Your task to perform on an android device: Go to battery settings Image 0: 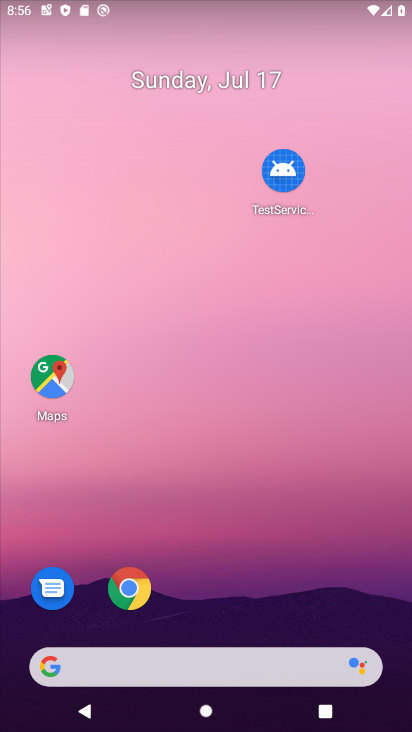
Step 0: drag from (172, 585) to (209, 199)
Your task to perform on an android device: Go to battery settings Image 1: 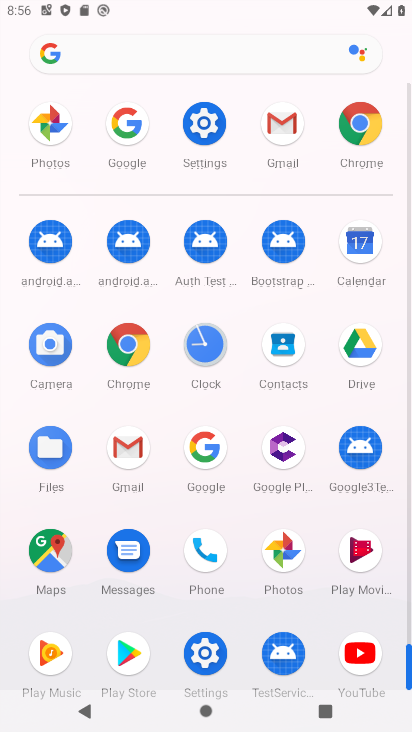
Step 1: drag from (242, 436) to (279, 221)
Your task to perform on an android device: Go to battery settings Image 2: 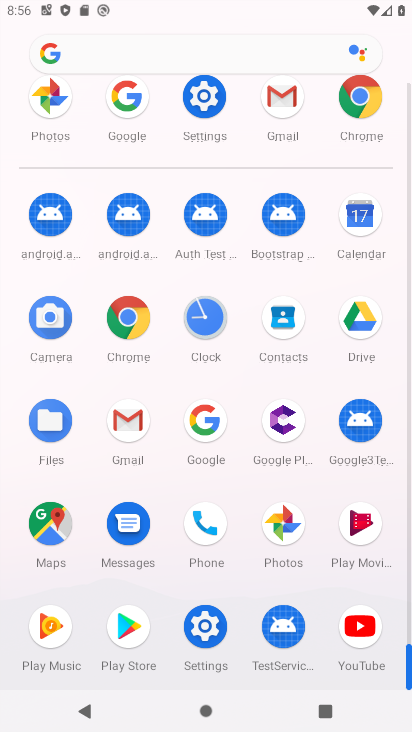
Step 2: click (218, 119)
Your task to perform on an android device: Go to battery settings Image 3: 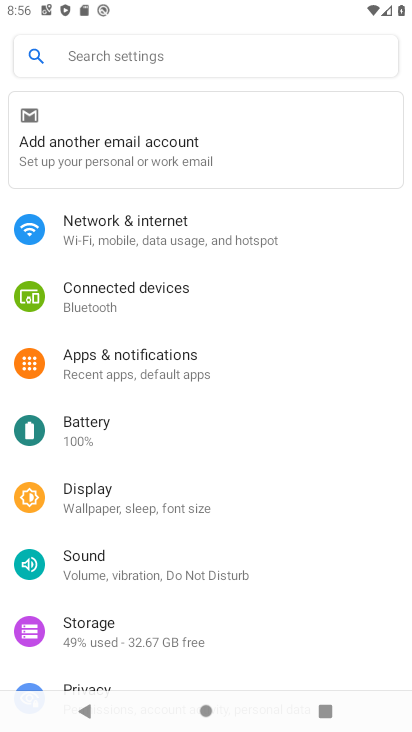
Step 3: drag from (178, 480) to (218, 227)
Your task to perform on an android device: Go to battery settings Image 4: 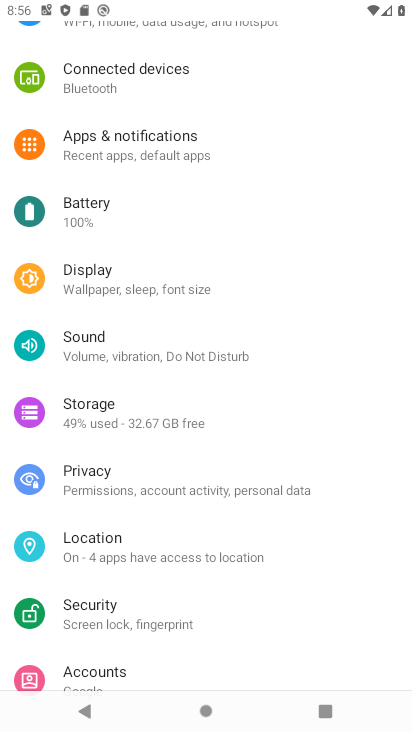
Step 4: click (155, 205)
Your task to perform on an android device: Go to battery settings Image 5: 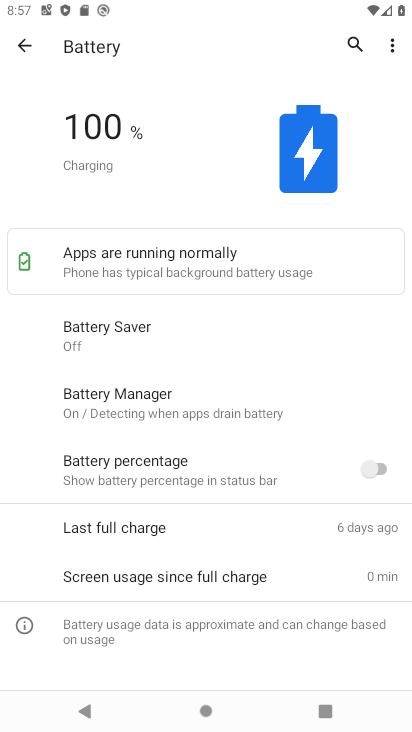
Step 5: task complete